Your task to perform on an android device: find photos in the google photos app Image 0: 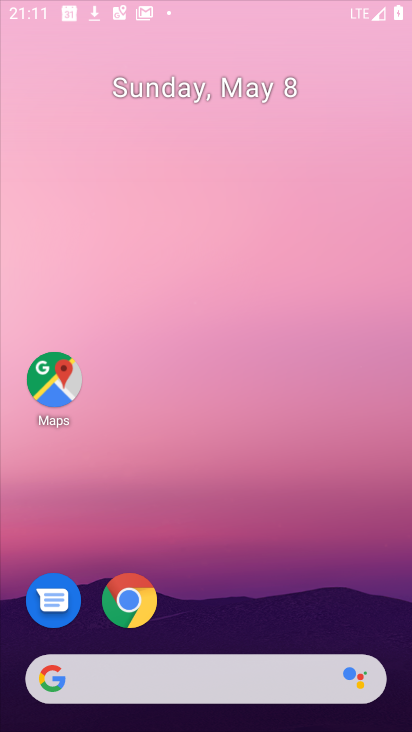
Step 0: drag from (213, 714) to (316, 269)
Your task to perform on an android device: find photos in the google photos app Image 1: 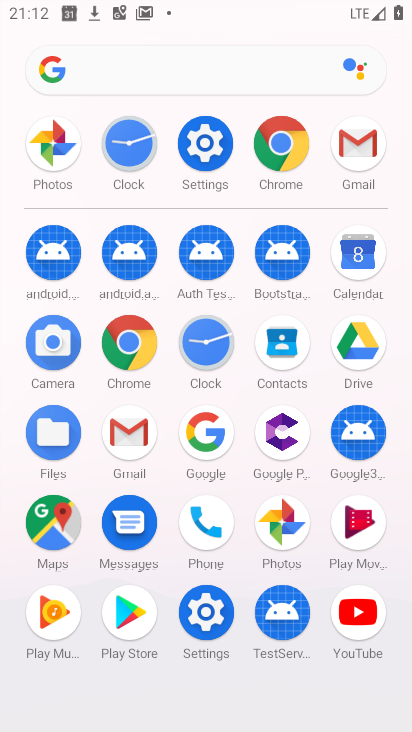
Step 1: click (273, 523)
Your task to perform on an android device: find photos in the google photos app Image 2: 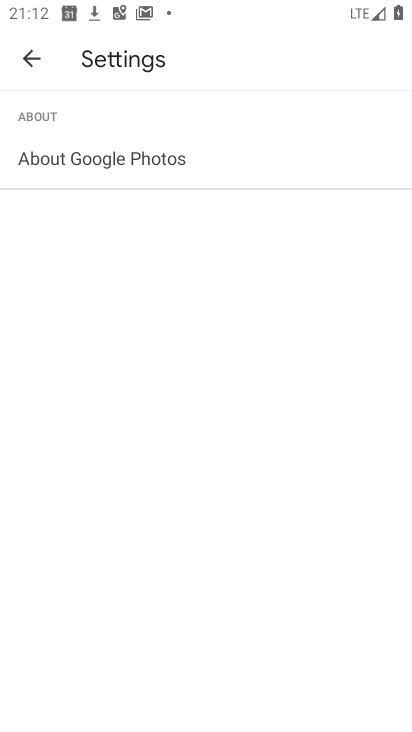
Step 2: click (33, 65)
Your task to perform on an android device: find photos in the google photos app Image 3: 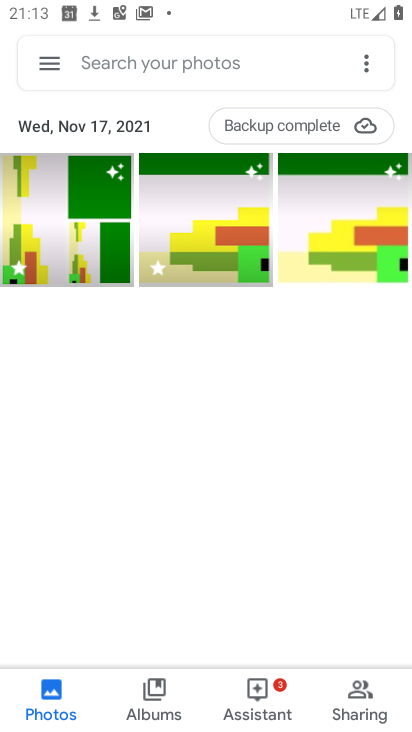
Step 3: task complete